Your task to perform on an android device: refresh tabs in the chrome app Image 0: 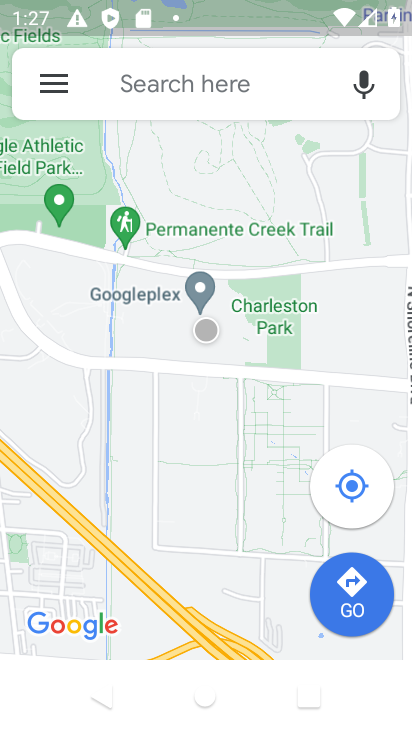
Step 0: press home button
Your task to perform on an android device: refresh tabs in the chrome app Image 1: 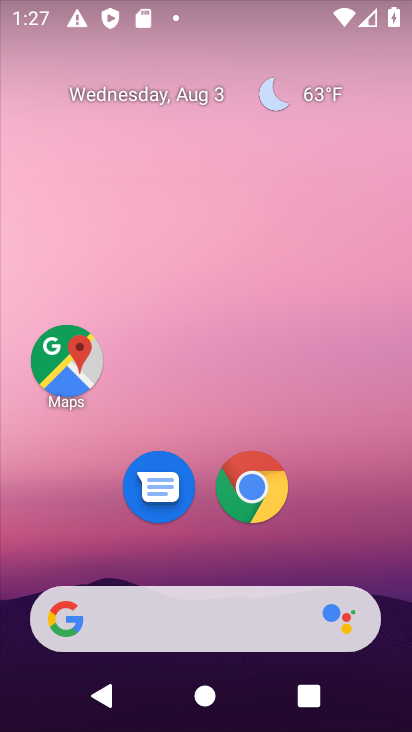
Step 1: drag from (323, 515) to (340, 137)
Your task to perform on an android device: refresh tabs in the chrome app Image 2: 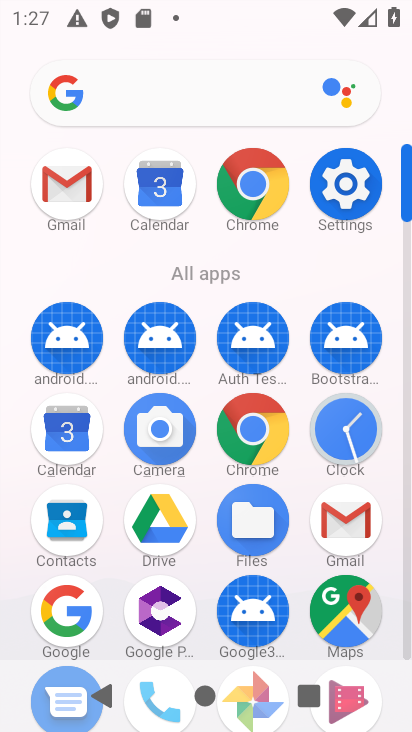
Step 2: click (261, 419)
Your task to perform on an android device: refresh tabs in the chrome app Image 3: 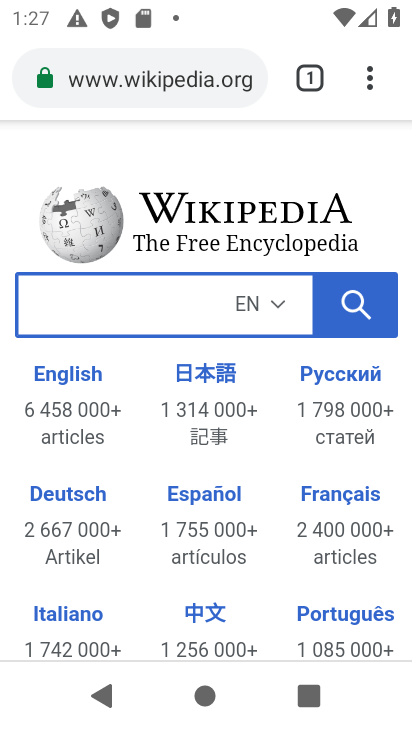
Step 3: click (370, 75)
Your task to perform on an android device: refresh tabs in the chrome app Image 4: 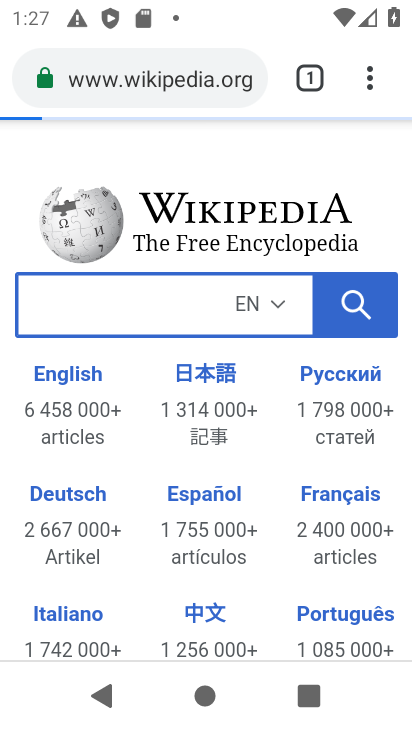
Step 4: click (366, 80)
Your task to perform on an android device: refresh tabs in the chrome app Image 5: 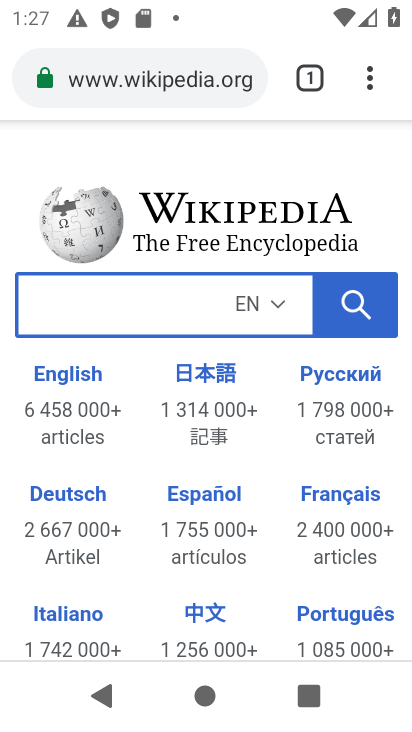
Step 5: task complete